Your task to perform on an android device: Show me popular games on the Play Store Image 0: 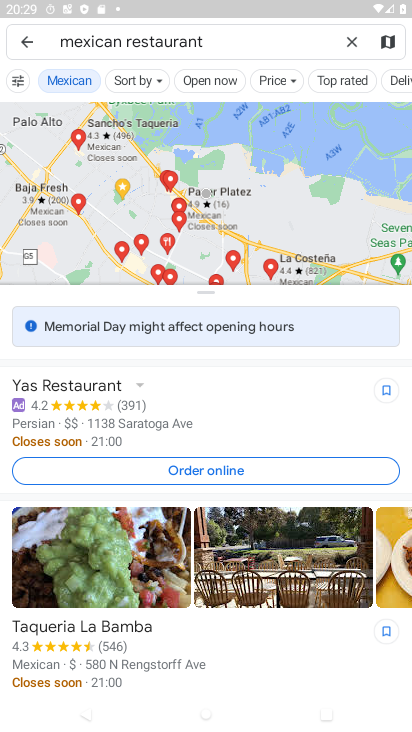
Step 0: press home button
Your task to perform on an android device: Show me popular games on the Play Store Image 1: 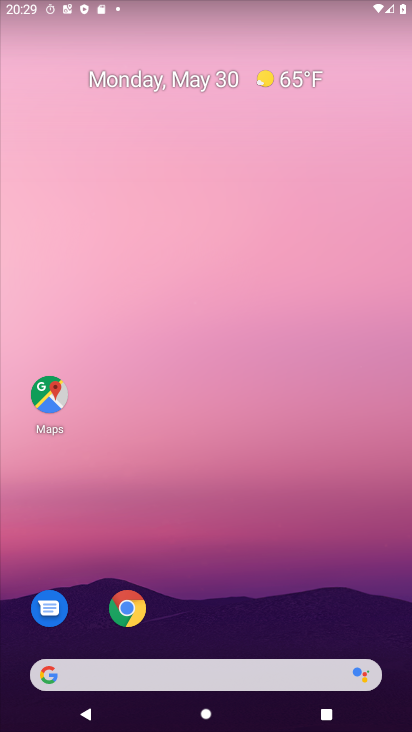
Step 1: drag from (185, 633) to (169, 225)
Your task to perform on an android device: Show me popular games on the Play Store Image 2: 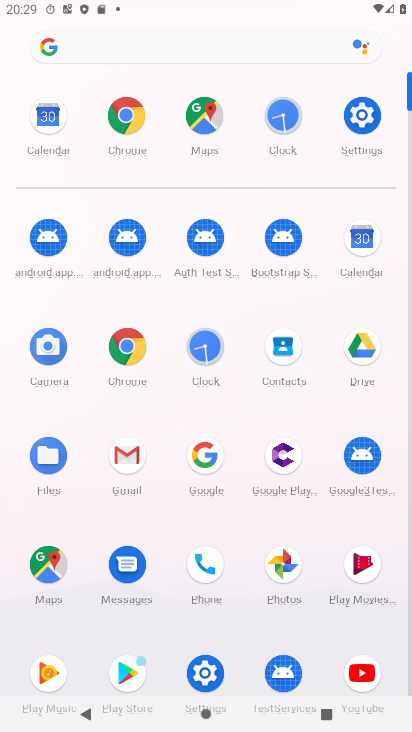
Step 2: click (118, 664)
Your task to perform on an android device: Show me popular games on the Play Store Image 3: 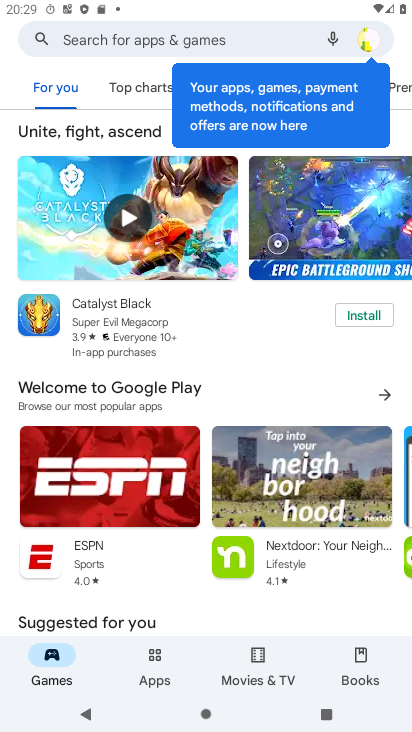
Step 3: click (125, 88)
Your task to perform on an android device: Show me popular games on the Play Store Image 4: 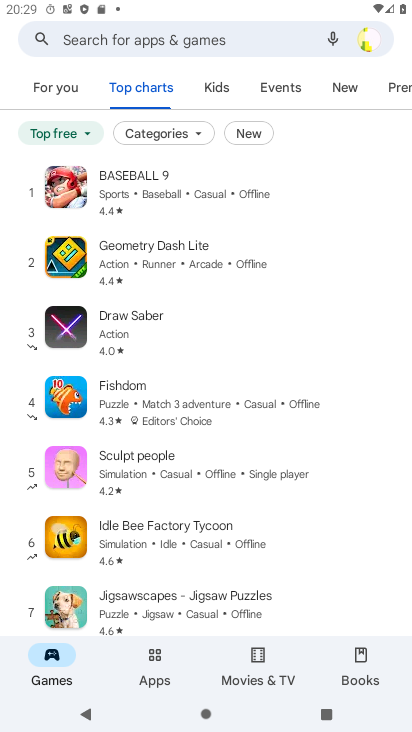
Step 4: click (39, 89)
Your task to perform on an android device: Show me popular games on the Play Store Image 5: 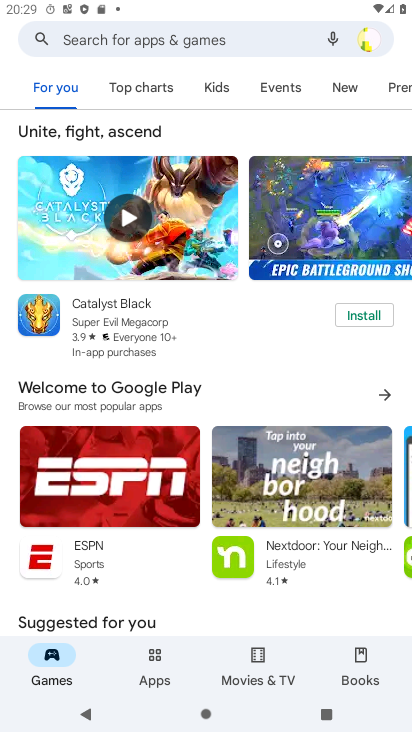
Step 5: click (137, 88)
Your task to perform on an android device: Show me popular games on the Play Store Image 6: 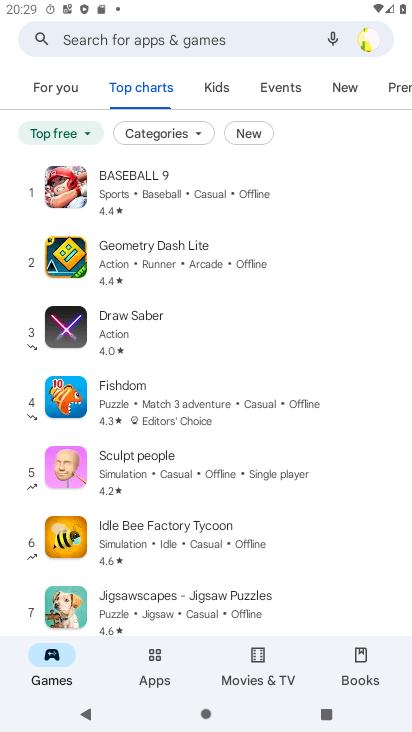
Step 6: task complete